Your task to perform on an android device: turn off translation in the chrome app Image 0: 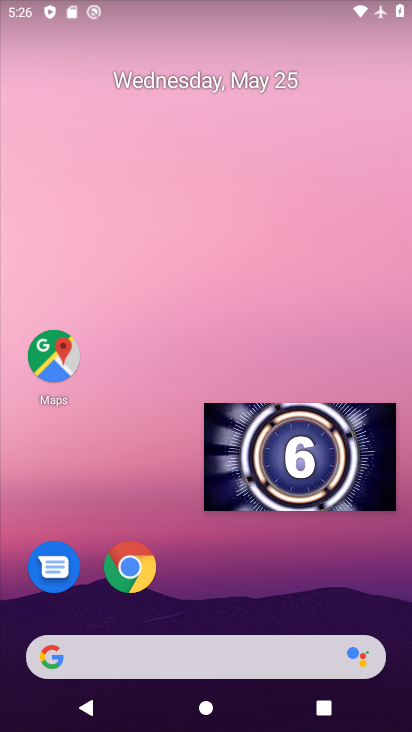
Step 0: click (360, 419)
Your task to perform on an android device: turn off translation in the chrome app Image 1: 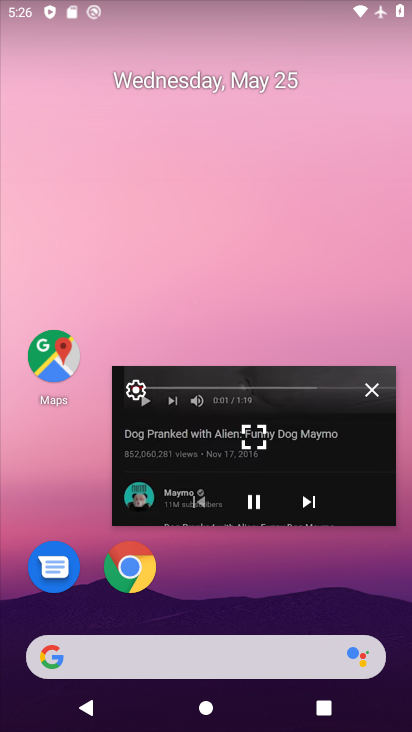
Step 1: click (366, 386)
Your task to perform on an android device: turn off translation in the chrome app Image 2: 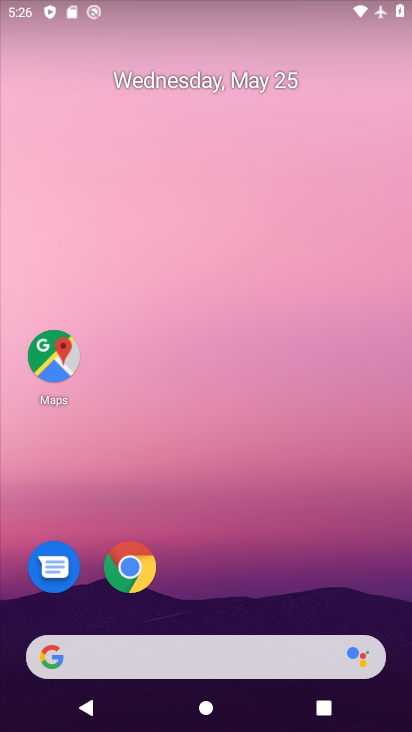
Step 2: drag from (294, 564) to (250, 6)
Your task to perform on an android device: turn off translation in the chrome app Image 3: 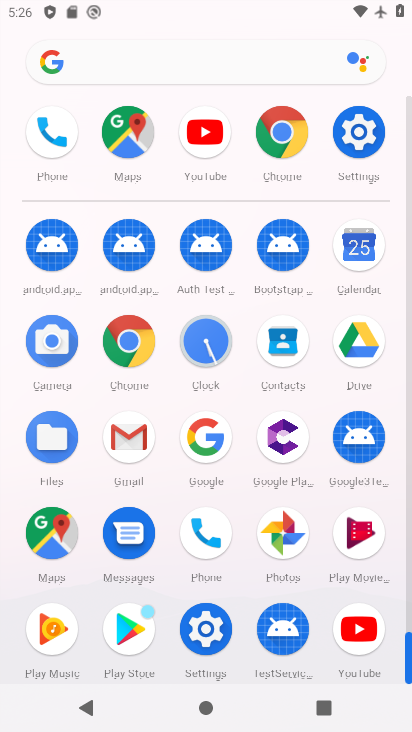
Step 3: drag from (4, 577) to (15, 298)
Your task to perform on an android device: turn off translation in the chrome app Image 4: 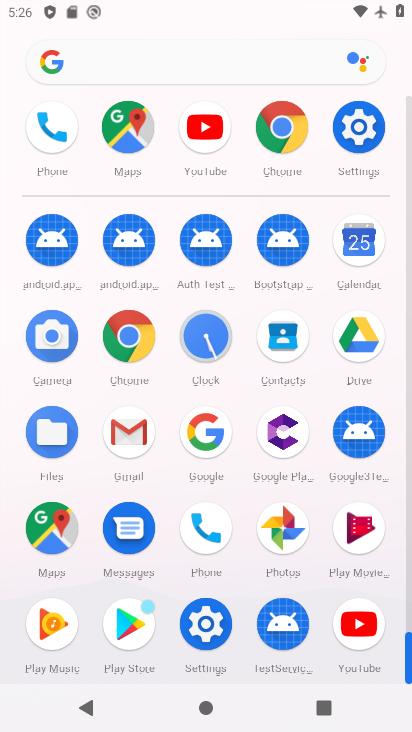
Step 4: click (127, 329)
Your task to perform on an android device: turn off translation in the chrome app Image 5: 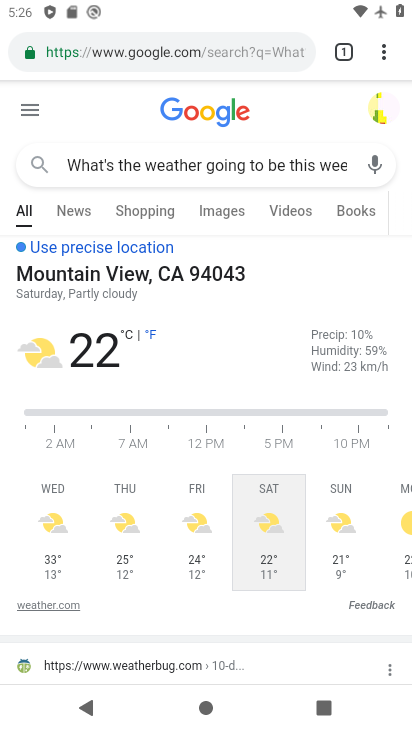
Step 5: drag from (382, 52) to (197, 570)
Your task to perform on an android device: turn off translation in the chrome app Image 6: 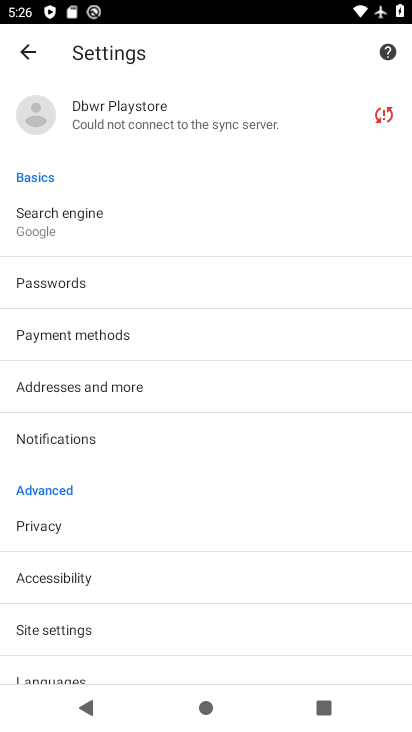
Step 6: drag from (176, 561) to (176, 249)
Your task to perform on an android device: turn off translation in the chrome app Image 7: 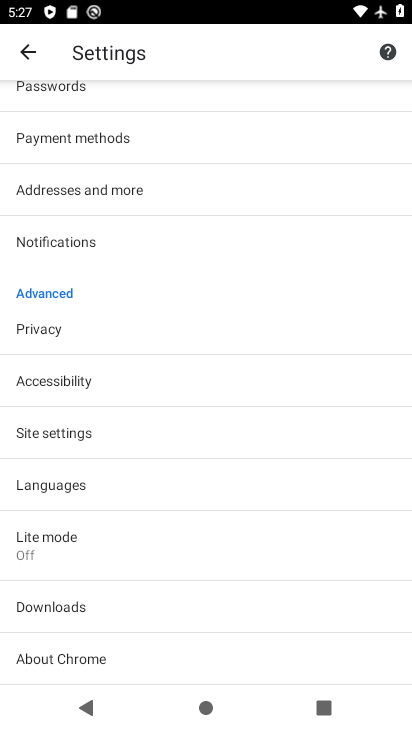
Step 7: click (98, 476)
Your task to perform on an android device: turn off translation in the chrome app Image 8: 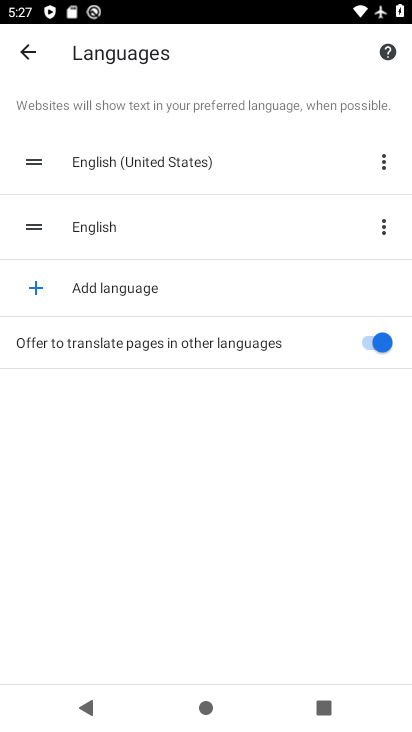
Step 8: click (367, 344)
Your task to perform on an android device: turn off translation in the chrome app Image 9: 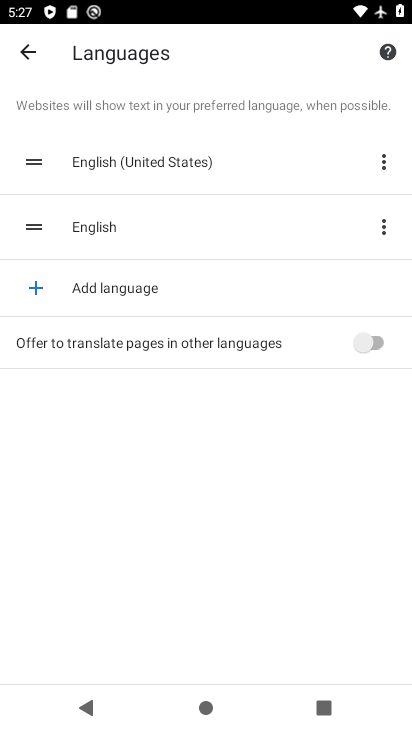
Step 9: task complete